Your task to perform on an android device: turn notification dots off Image 0: 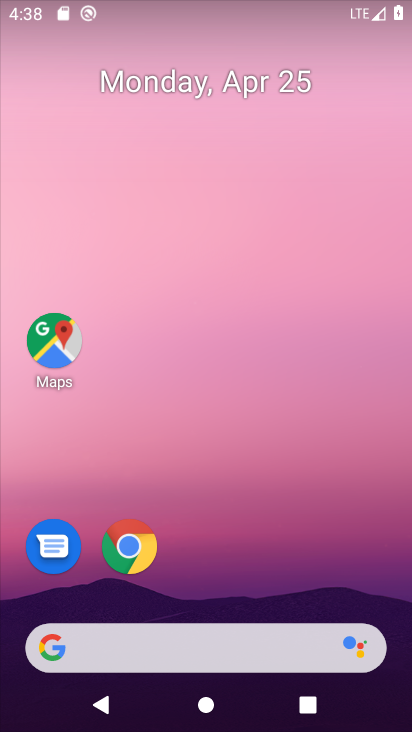
Step 0: drag from (292, 589) to (339, 79)
Your task to perform on an android device: turn notification dots off Image 1: 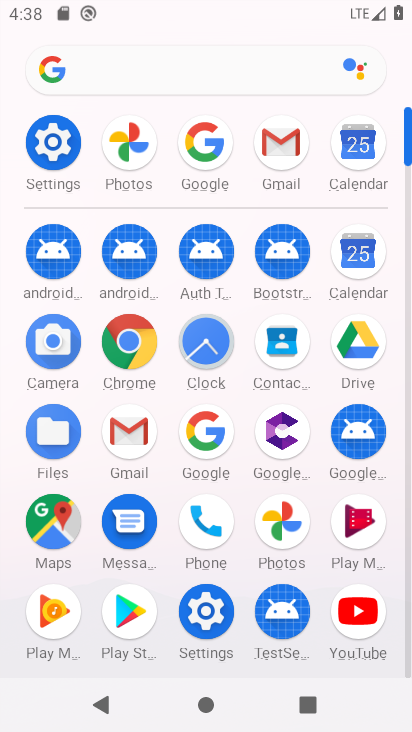
Step 1: click (52, 152)
Your task to perform on an android device: turn notification dots off Image 2: 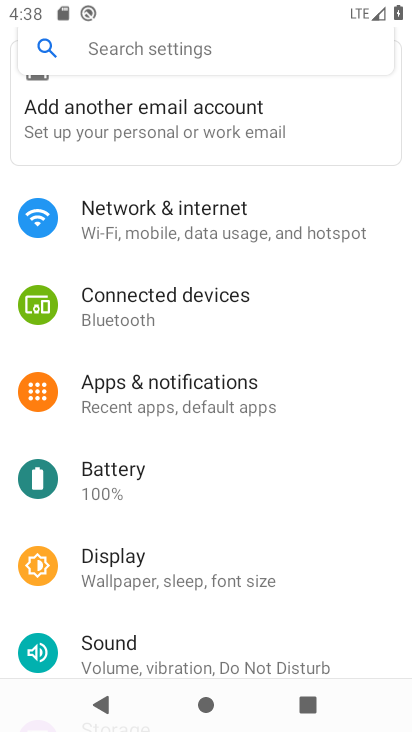
Step 2: click (211, 392)
Your task to perform on an android device: turn notification dots off Image 3: 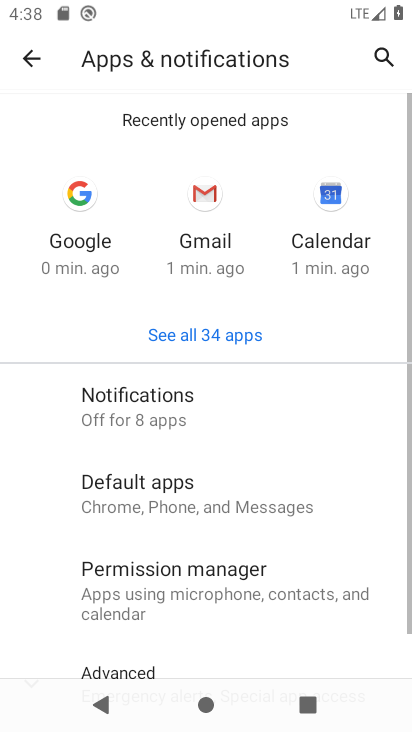
Step 3: click (176, 416)
Your task to perform on an android device: turn notification dots off Image 4: 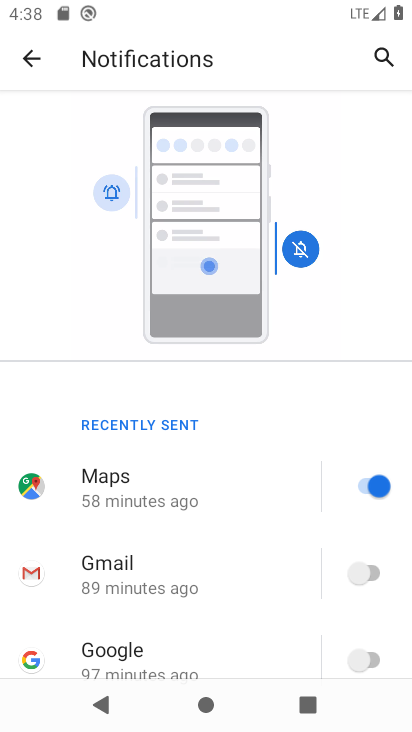
Step 4: drag from (224, 611) to (250, 193)
Your task to perform on an android device: turn notification dots off Image 5: 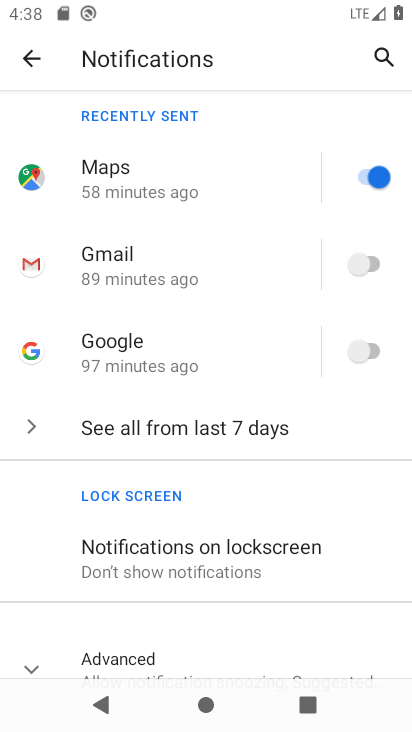
Step 5: click (163, 647)
Your task to perform on an android device: turn notification dots off Image 6: 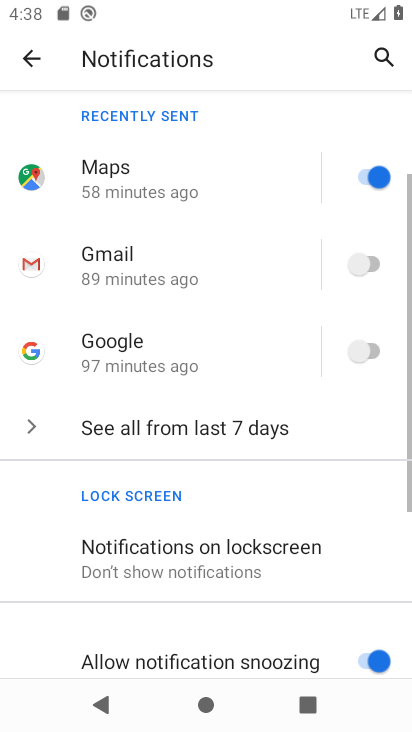
Step 6: task complete